Your task to perform on an android device: add a label to a message in the gmail app Image 0: 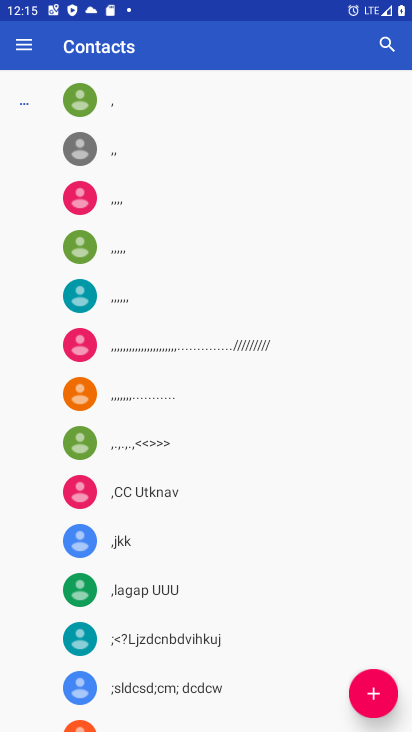
Step 0: press home button
Your task to perform on an android device: add a label to a message in the gmail app Image 1: 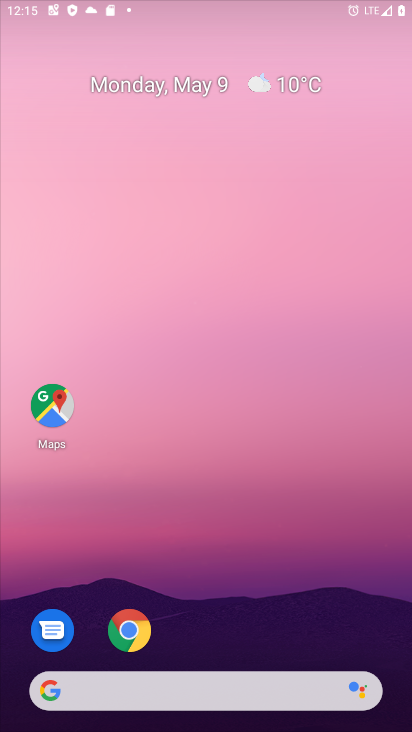
Step 1: drag from (367, 635) to (409, 544)
Your task to perform on an android device: add a label to a message in the gmail app Image 2: 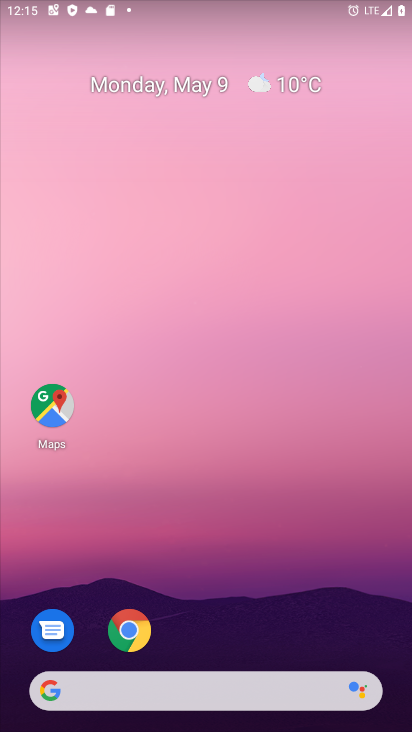
Step 2: drag from (328, 629) to (183, 52)
Your task to perform on an android device: add a label to a message in the gmail app Image 3: 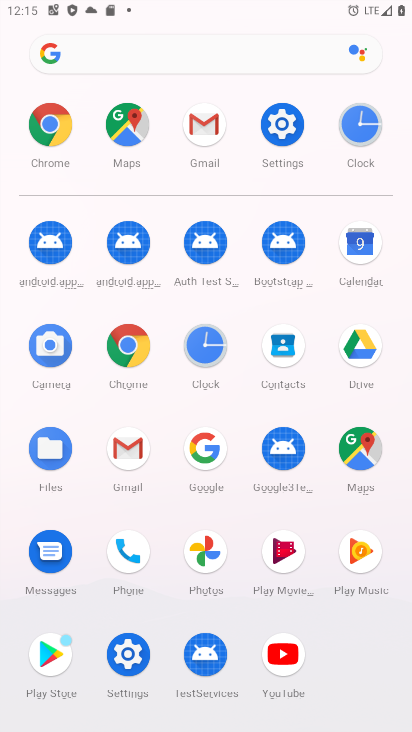
Step 3: click (114, 463)
Your task to perform on an android device: add a label to a message in the gmail app Image 4: 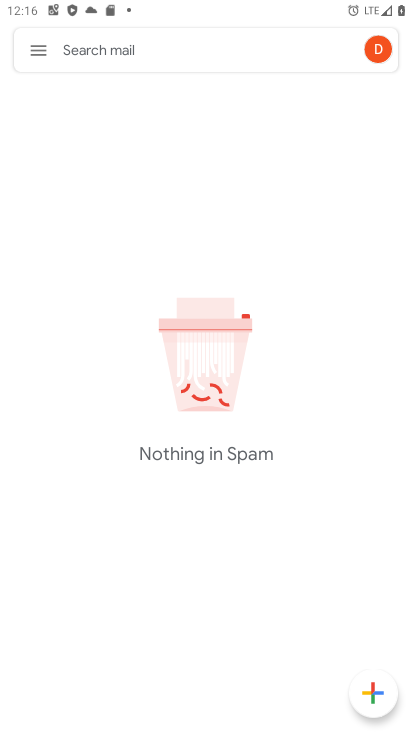
Step 4: task complete